Your task to perform on an android device: What's the weather? Image 0: 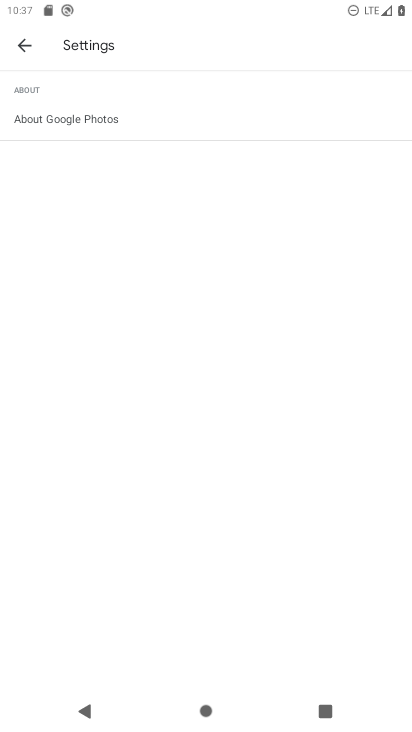
Step 0: press home button
Your task to perform on an android device: What's the weather? Image 1: 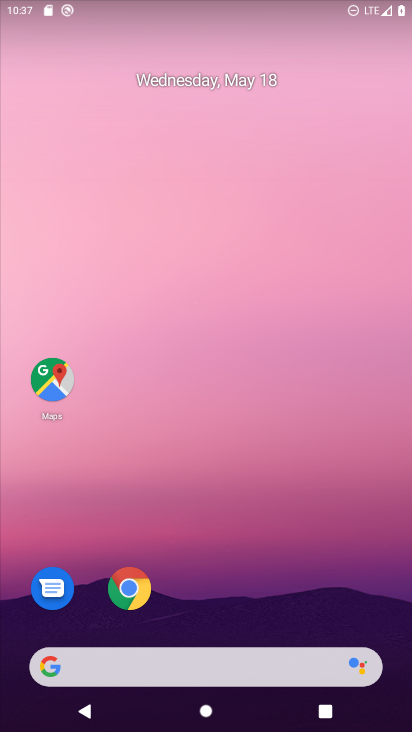
Step 1: click (121, 663)
Your task to perform on an android device: What's the weather? Image 2: 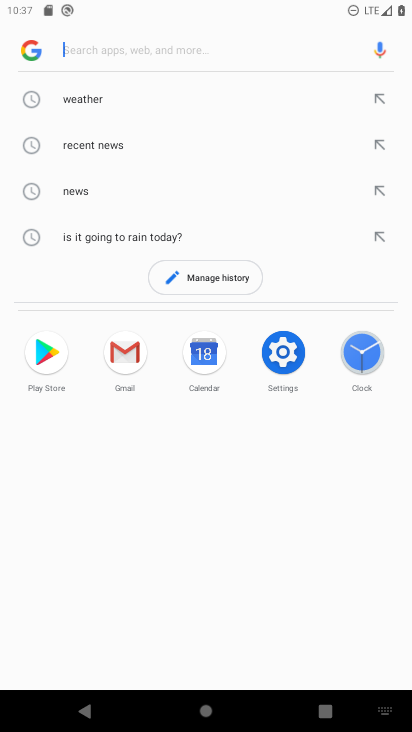
Step 2: click (76, 102)
Your task to perform on an android device: What's the weather? Image 3: 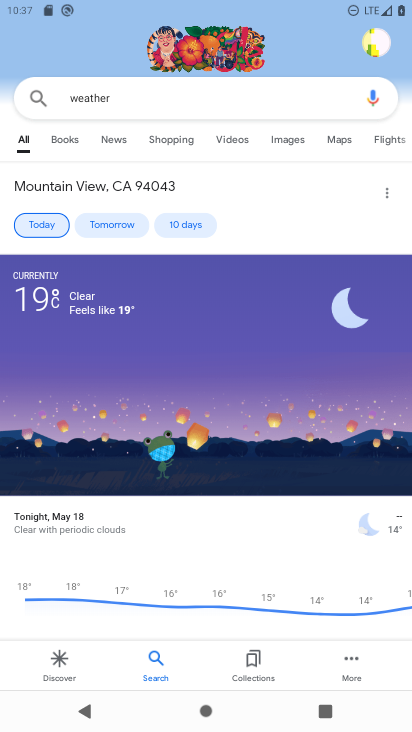
Step 3: task complete